Your task to perform on an android device: Set the phone to "Do not disturb". Image 0: 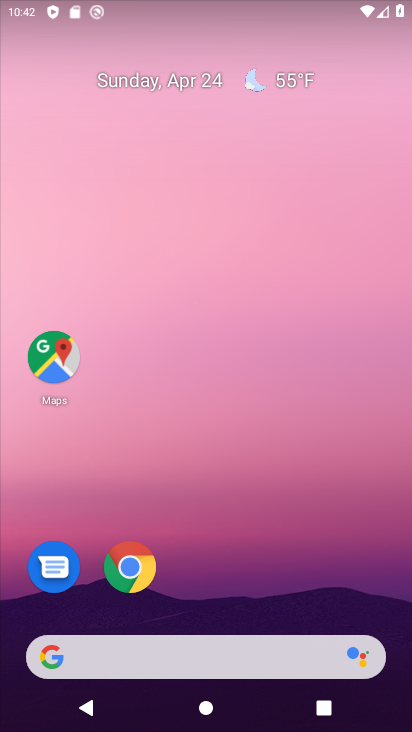
Step 0: drag from (402, 488) to (344, 150)
Your task to perform on an android device: Set the phone to "Do not disturb". Image 1: 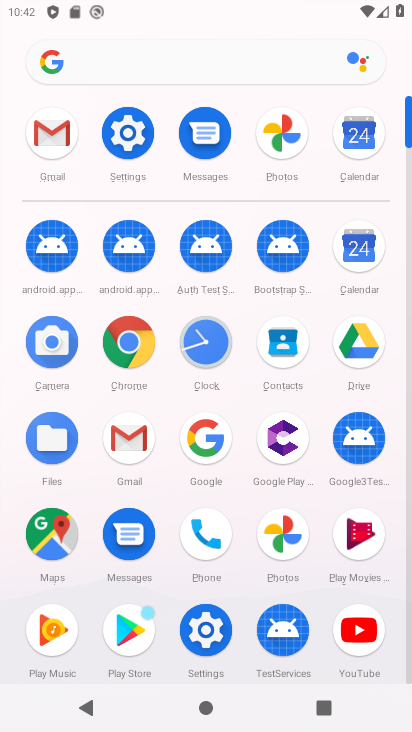
Step 1: click (128, 140)
Your task to perform on an android device: Set the phone to "Do not disturb". Image 2: 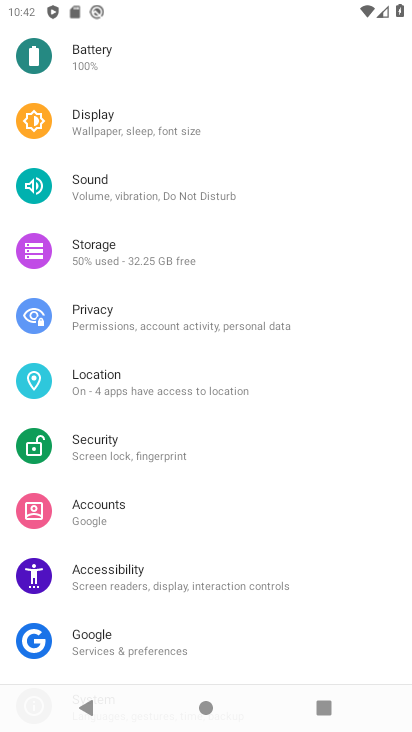
Step 2: click (101, 180)
Your task to perform on an android device: Set the phone to "Do not disturb". Image 3: 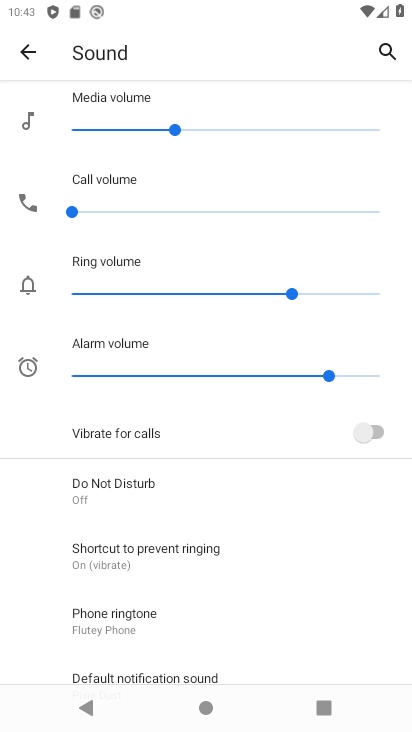
Step 3: drag from (306, 395) to (305, 252)
Your task to perform on an android device: Set the phone to "Do not disturb". Image 4: 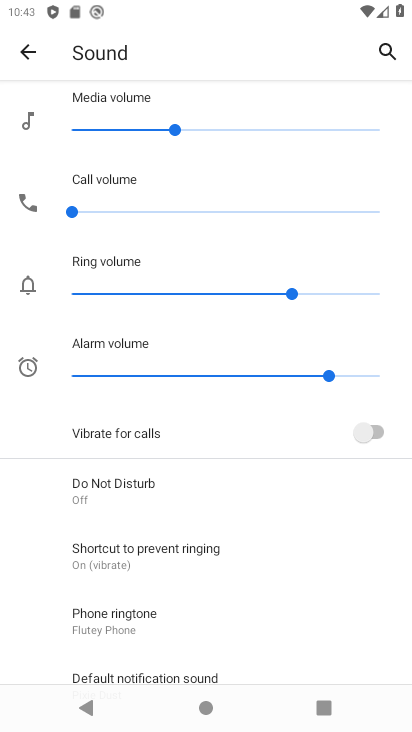
Step 4: drag from (277, 652) to (294, 225)
Your task to perform on an android device: Set the phone to "Do not disturb". Image 5: 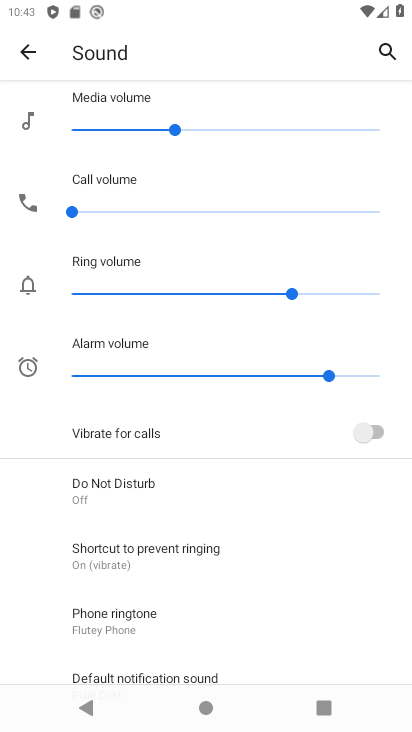
Step 5: click (77, 480)
Your task to perform on an android device: Set the phone to "Do not disturb". Image 6: 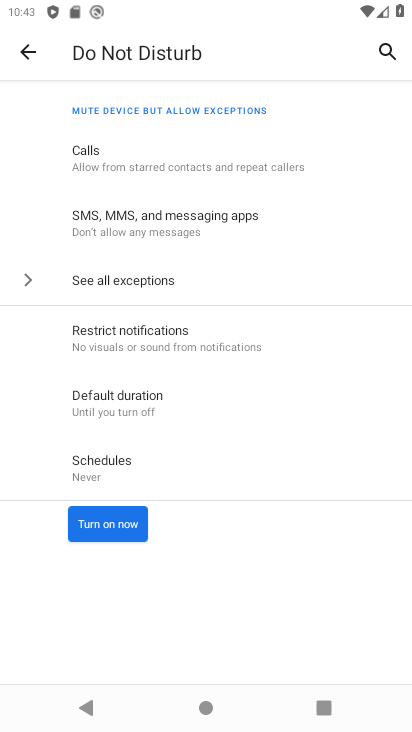
Step 6: click (102, 519)
Your task to perform on an android device: Set the phone to "Do not disturb". Image 7: 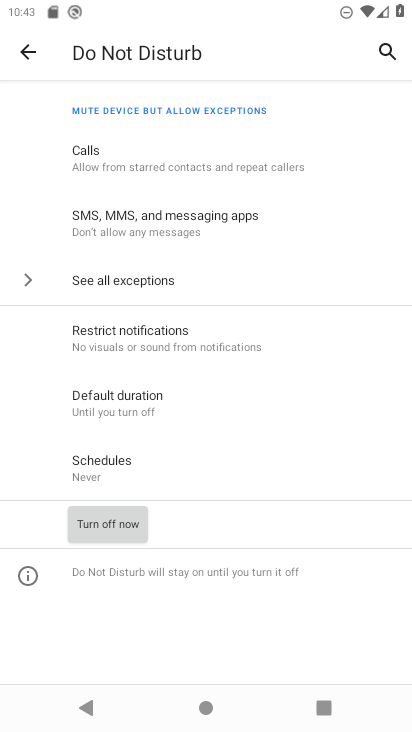
Step 7: task complete